Your task to perform on an android device: remove spam from my inbox in the gmail app Image 0: 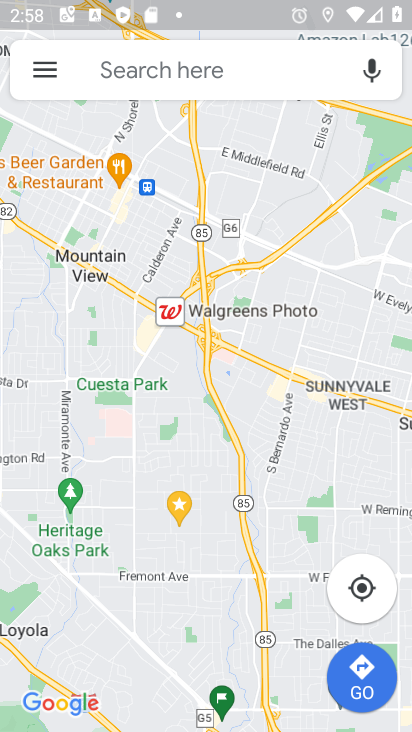
Step 0: click (47, 69)
Your task to perform on an android device: remove spam from my inbox in the gmail app Image 1: 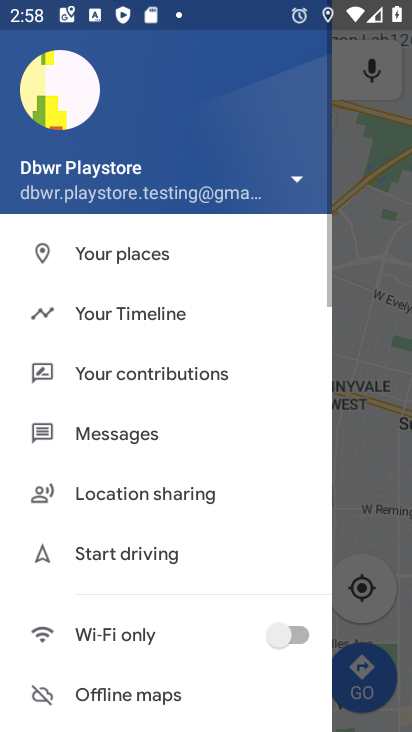
Step 1: drag from (218, 562) to (188, 138)
Your task to perform on an android device: remove spam from my inbox in the gmail app Image 2: 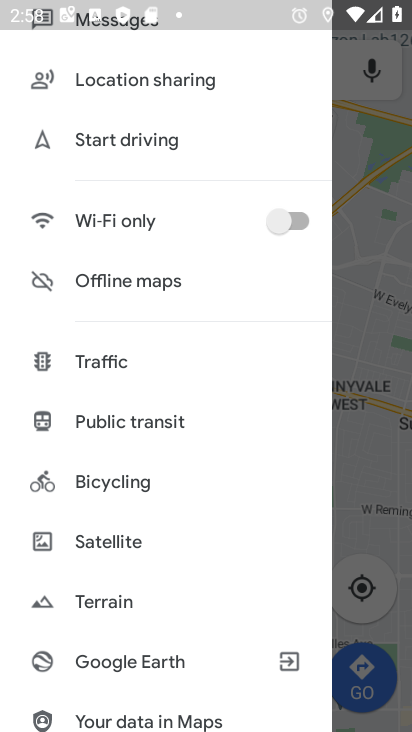
Step 2: press home button
Your task to perform on an android device: remove spam from my inbox in the gmail app Image 3: 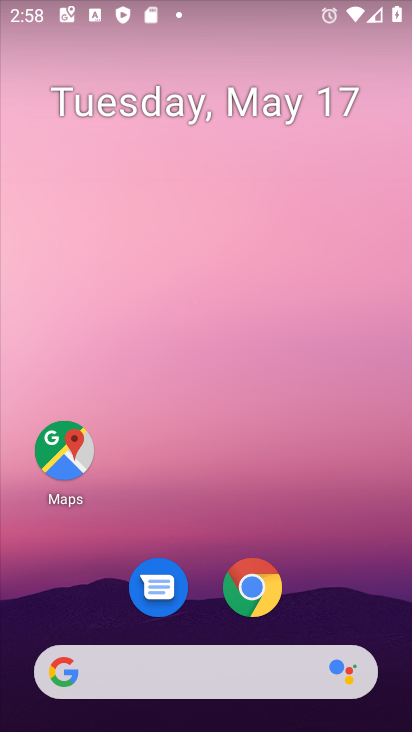
Step 3: drag from (276, 568) to (257, 110)
Your task to perform on an android device: remove spam from my inbox in the gmail app Image 4: 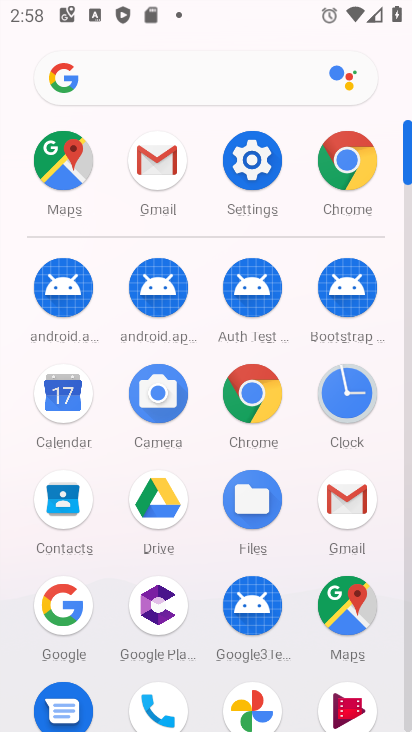
Step 4: click (348, 497)
Your task to perform on an android device: remove spam from my inbox in the gmail app Image 5: 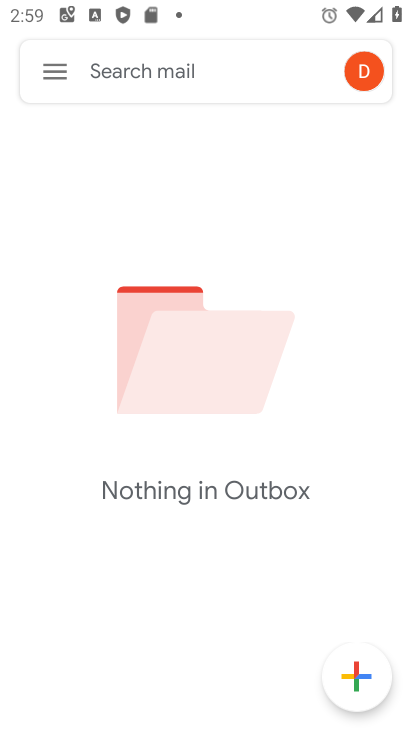
Step 5: click (64, 78)
Your task to perform on an android device: remove spam from my inbox in the gmail app Image 6: 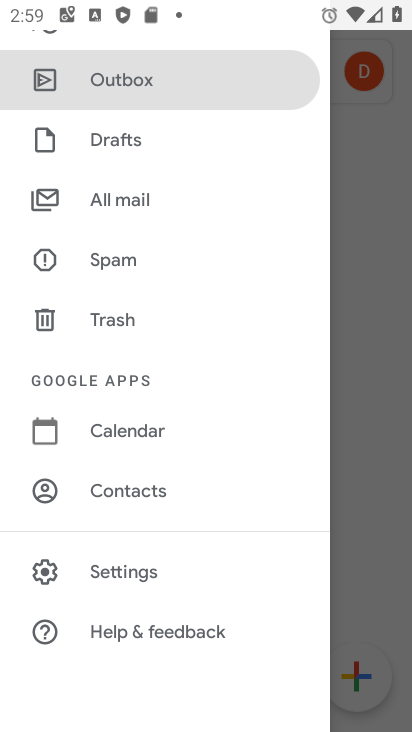
Step 6: click (122, 254)
Your task to perform on an android device: remove spam from my inbox in the gmail app Image 7: 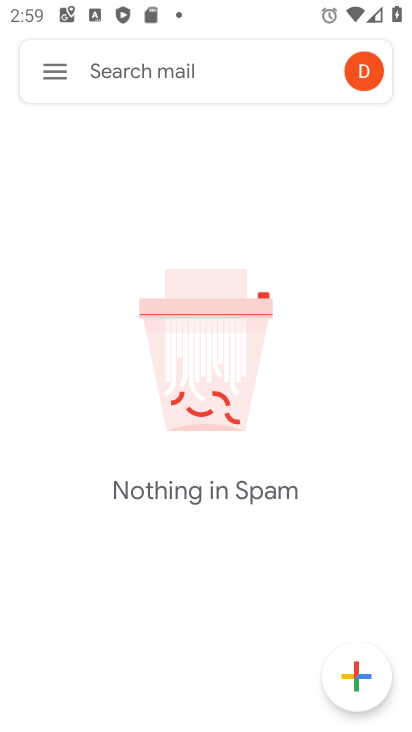
Step 7: drag from (208, 509) to (196, 361)
Your task to perform on an android device: remove spam from my inbox in the gmail app Image 8: 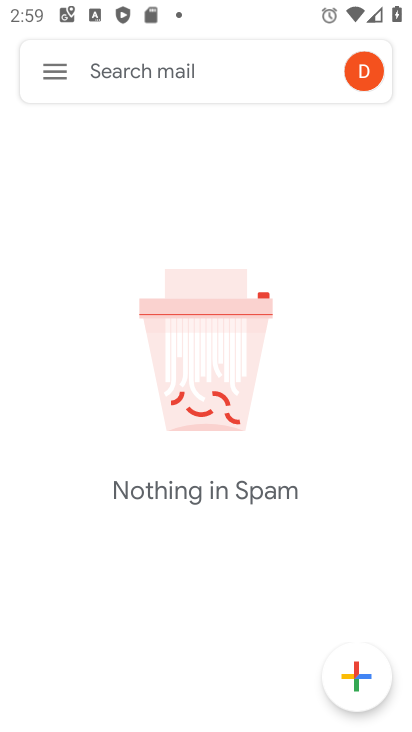
Step 8: drag from (285, 429) to (279, 244)
Your task to perform on an android device: remove spam from my inbox in the gmail app Image 9: 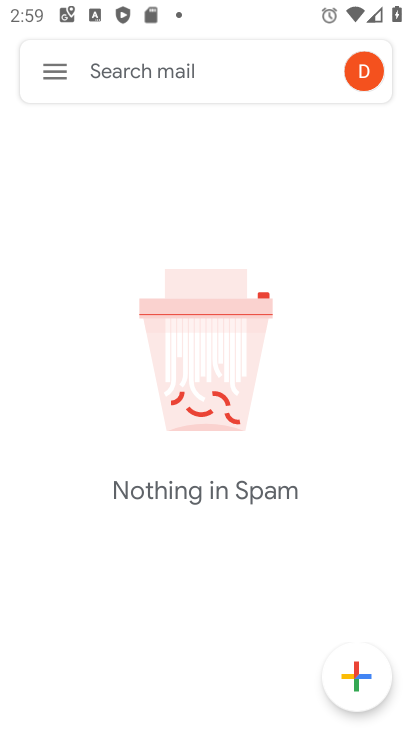
Step 9: click (58, 67)
Your task to perform on an android device: remove spam from my inbox in the gmail app Image 10: 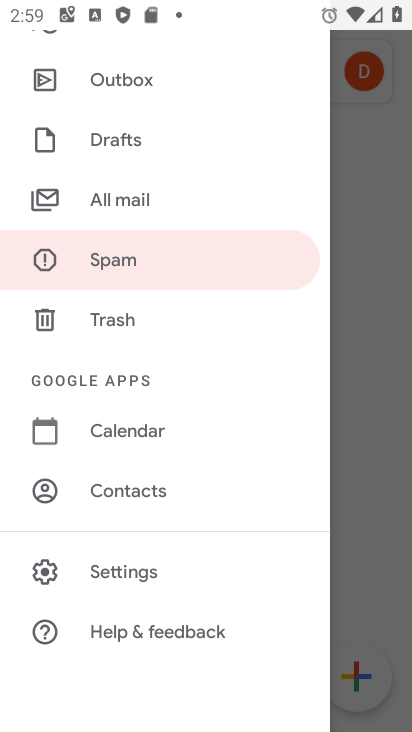
Step 10: task complete